Your task to perform on an android device: turn on javascript in the chrome app Image 0: 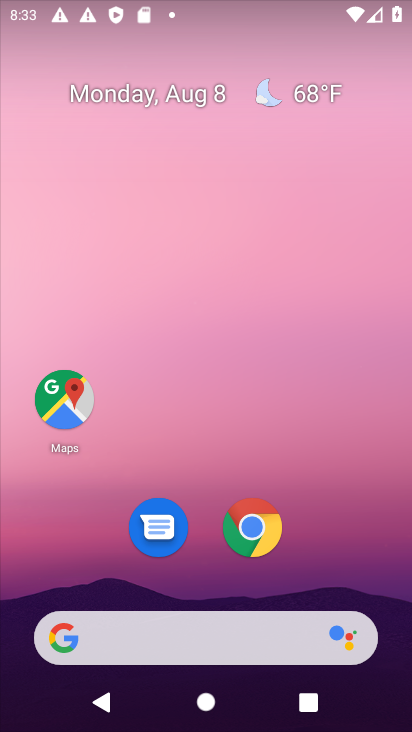
Step 0: click (260, 528)
Your task to perform on an android device: turn on javascript in the chrome app Image 1: 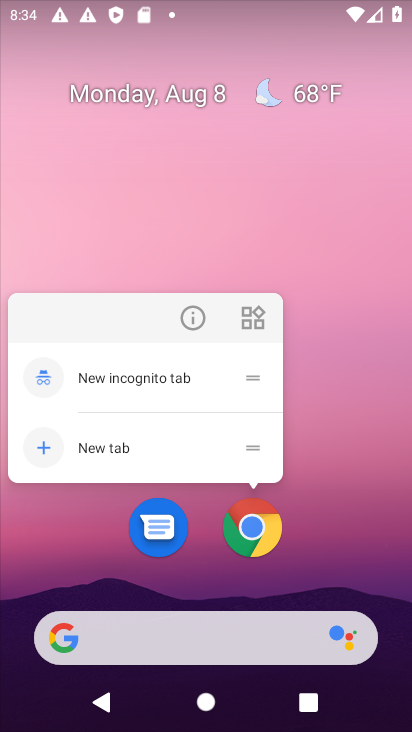
Step 1: click (261, 519)
Your task to perform on an android device: turn on javascript in the chrome app Image 2: 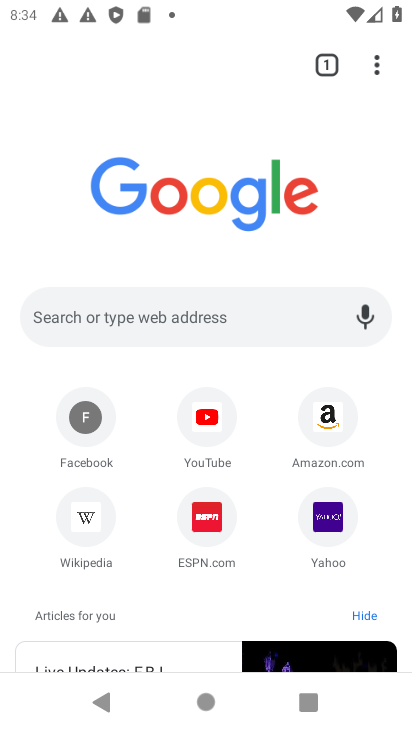
Step 2: click (373, 58)
Your task to perform on an android device: turn on javascript in the chrome app Image 3: 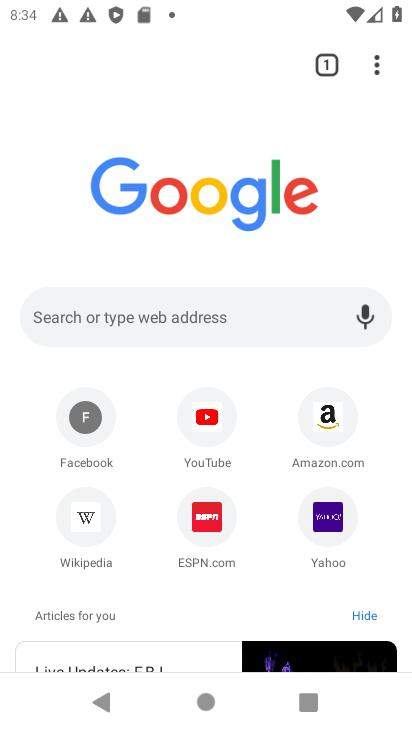
Step 3: click (375, 64)
Your task to perform on an android device: turn on javascript in the chrome app Image 4: 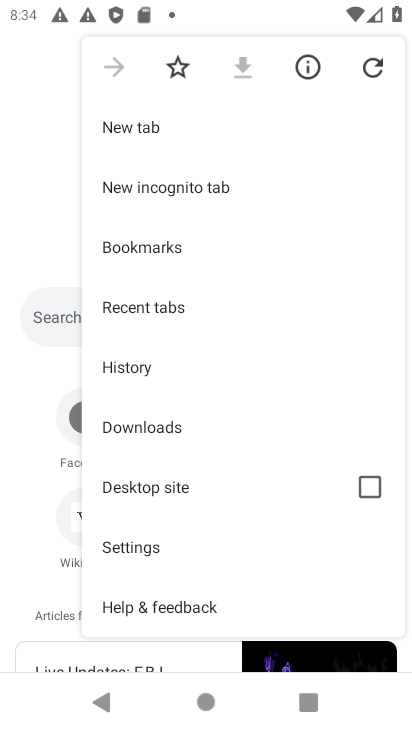
Step 4: click (135, 539)
Your task to perform on an android device: turn on javascript in the chrome app Image 5: 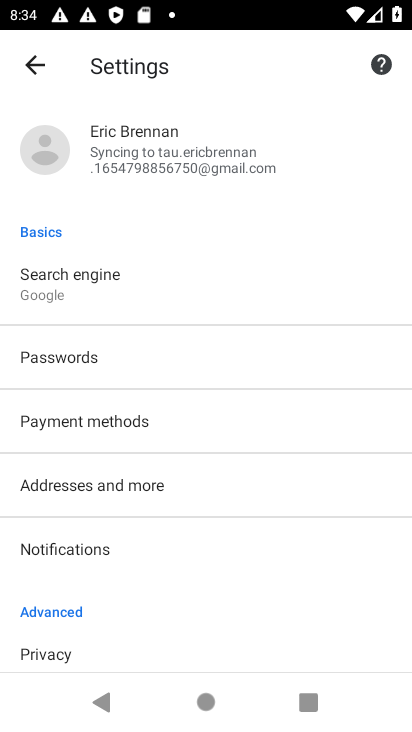
Step 5: drag from (220, 637) to (240, 249)
Your task to perform on an android device: turn on javascript in the chrome app Image 6: 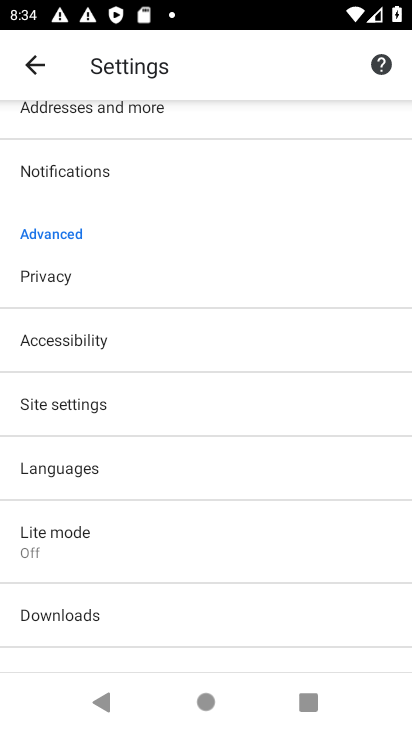
Step 6: click (52, 395)
Your task to perform on an android device: turn on javascript in the chrome app Image 7: 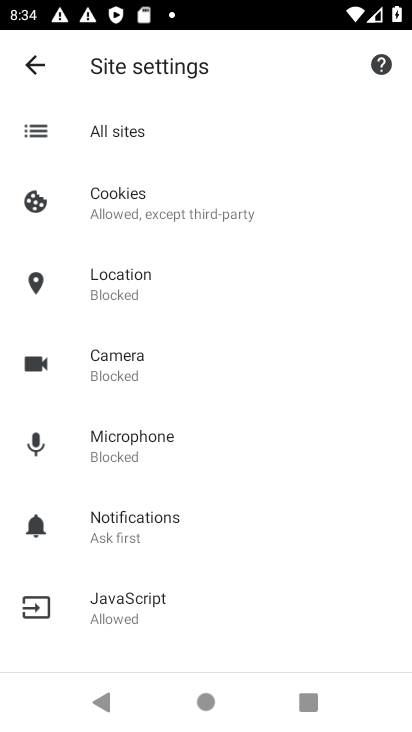
Step 7: click (111, 603)
Your task to perform on an android device: turn on javascript in the chrome app Image 8: 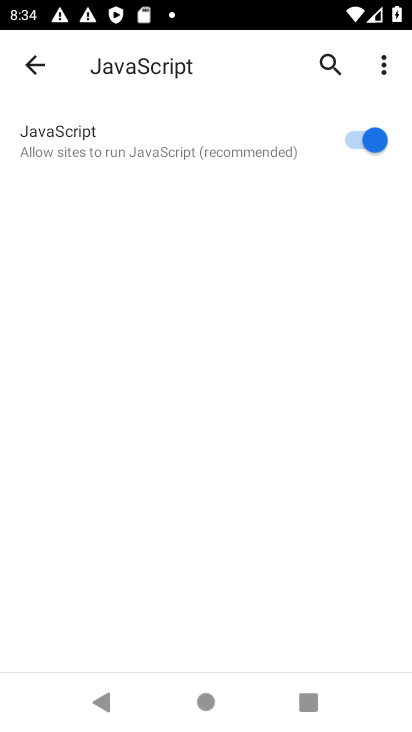
Step 8: task complete